Your task to perform on an android device: Check the weather Image 0: 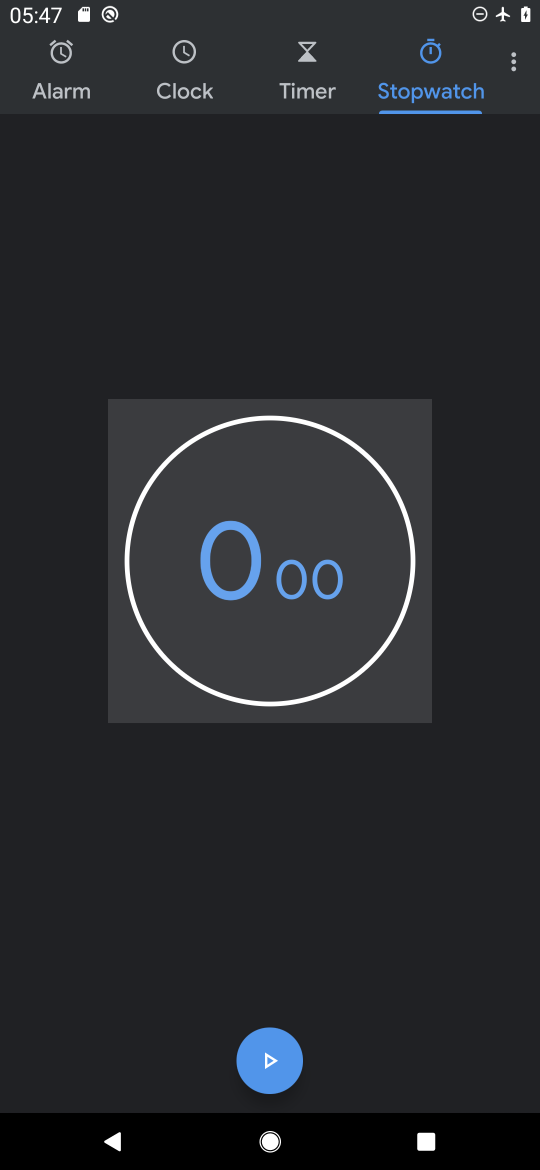
Step 0: press home button
Your task to perform on an android device: Check the weather Image 1: 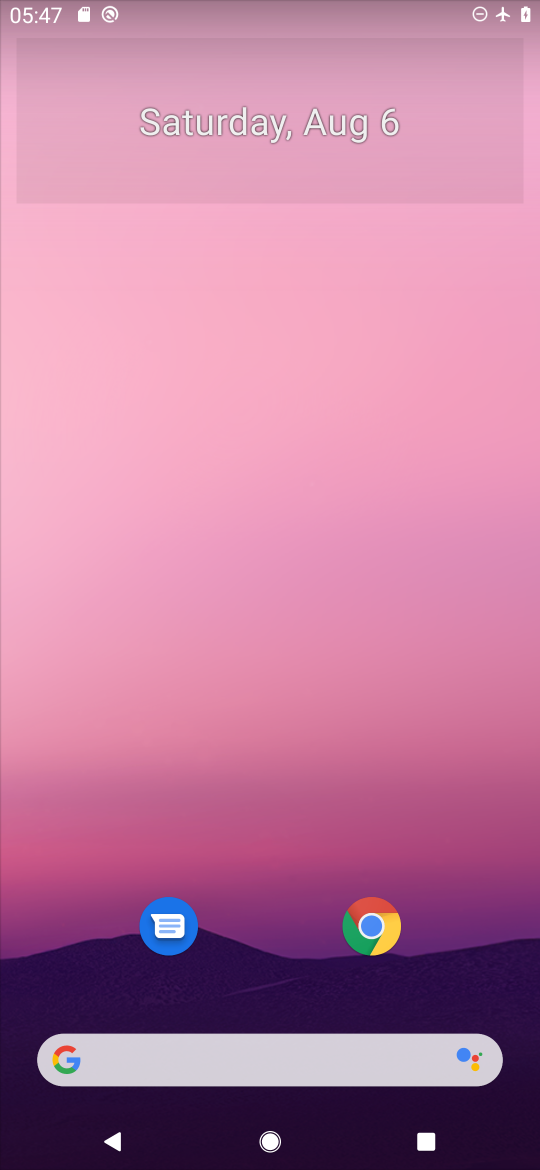
Step 1: drag from (290, 932) to (283, 315)
Your task to perform on an android device: Check the weather Image 2: 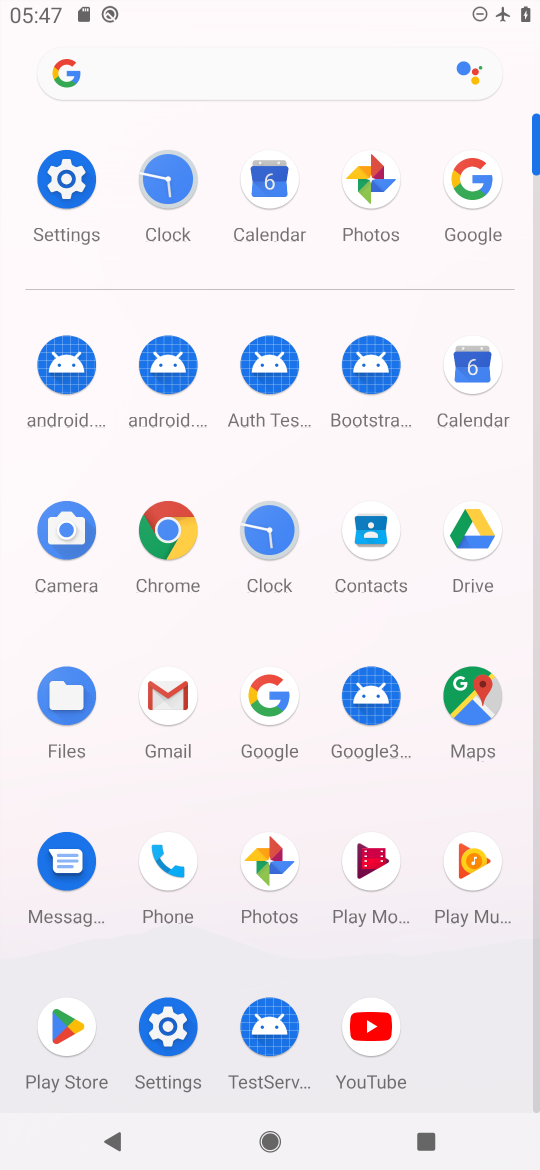
Step 2: click (488, 183)
Your task to perform on an android device: Check the weather Image 3: 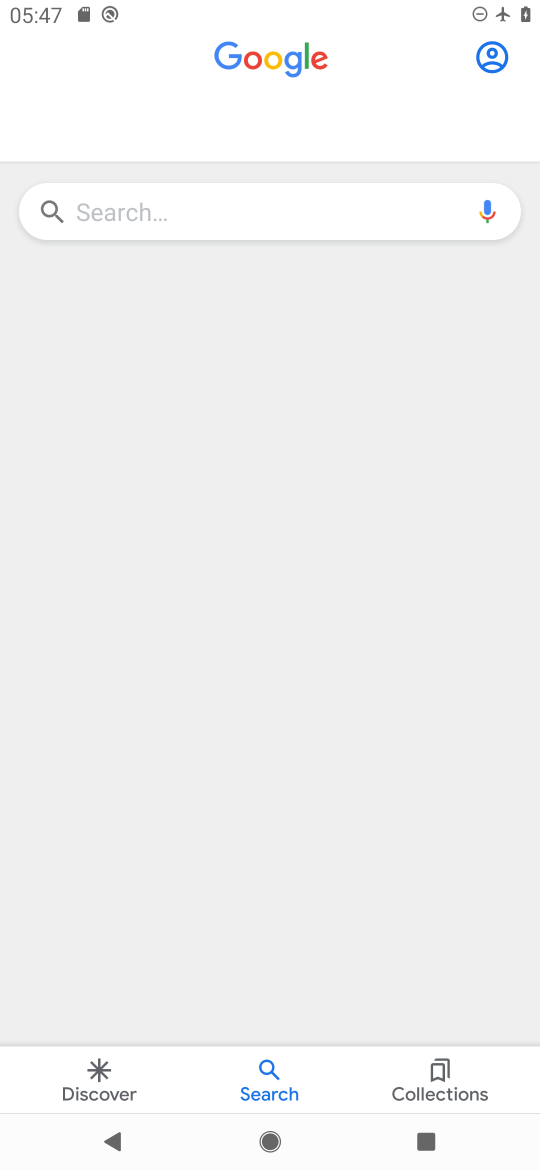
Step 3: click (254, 207)
Your task to perform on an android device: Check the weather Image 4: 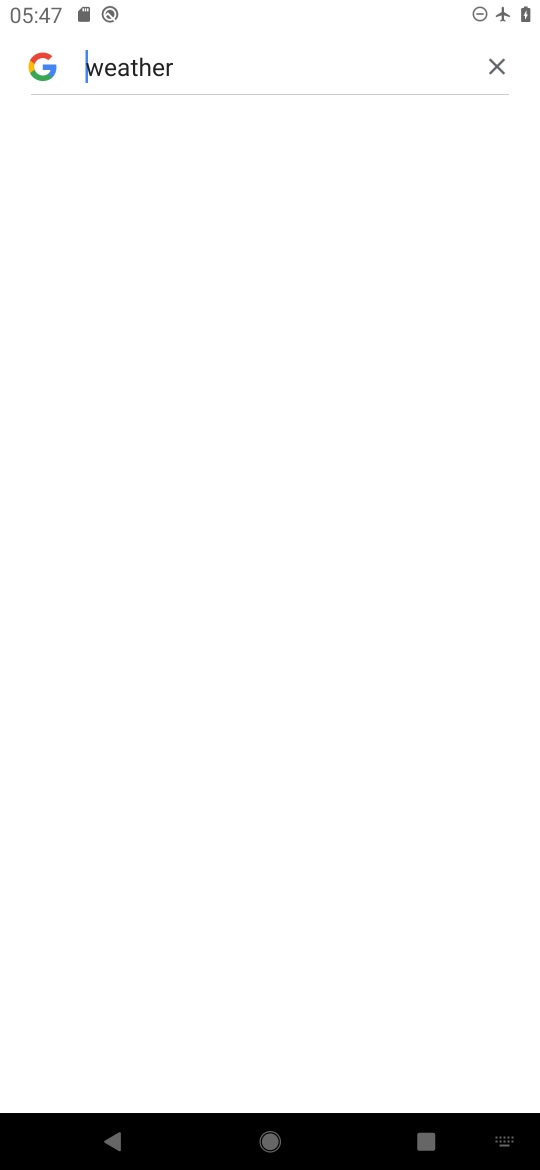
Step 4: click (257, 89)
Your task to perform on an android device: Check the weather Image 5: 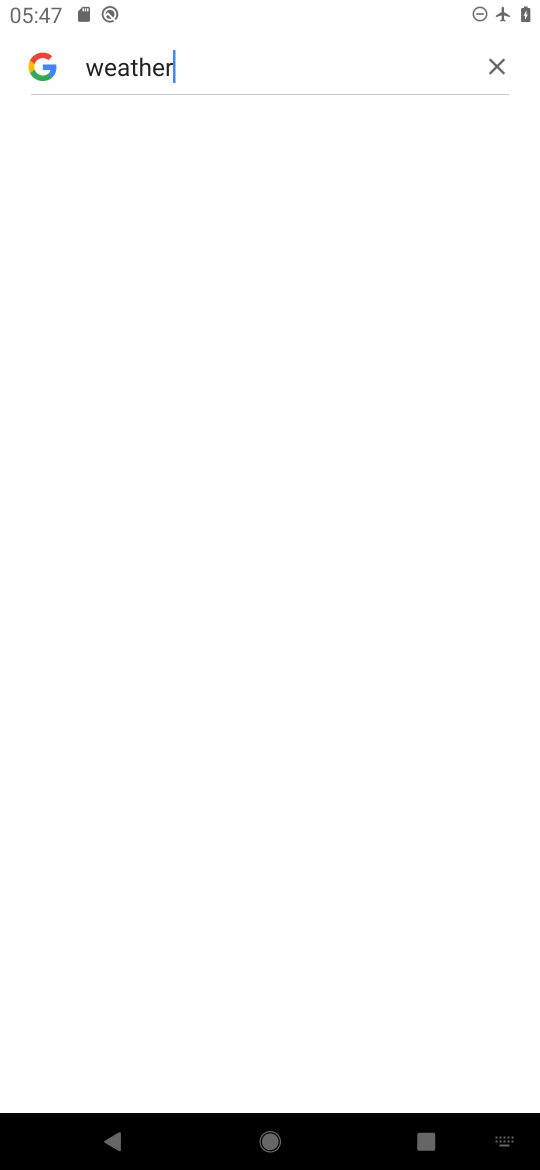
Step 5: task complete